Your task to perform on an android device: remove spam from my inbox in the gmail app Image 0: 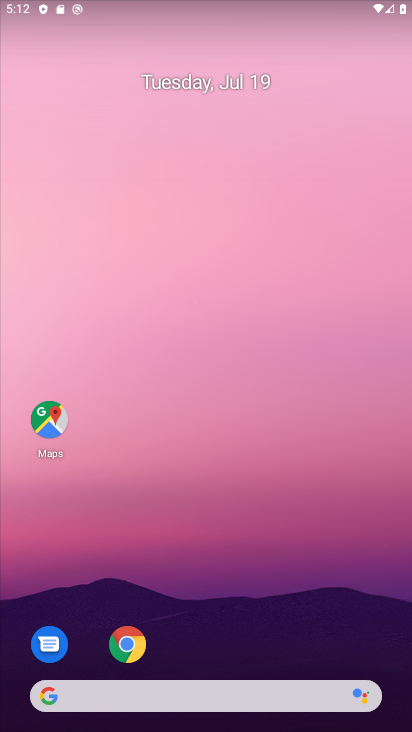
Step 0: drag from (295, 601) to (295, 181)
Your task to perform on an android device: remove spam from my inbox in the gmail app Image 1: 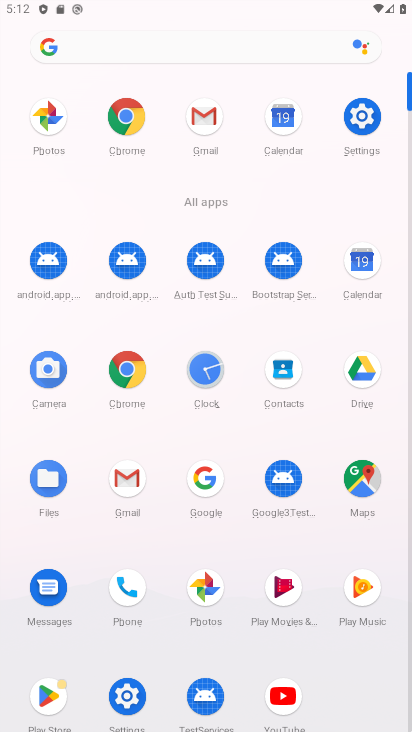
Step 1: click (133, 479)
Your task to perform on an android device: remove spam from my inbox in the gmail app Image 2: 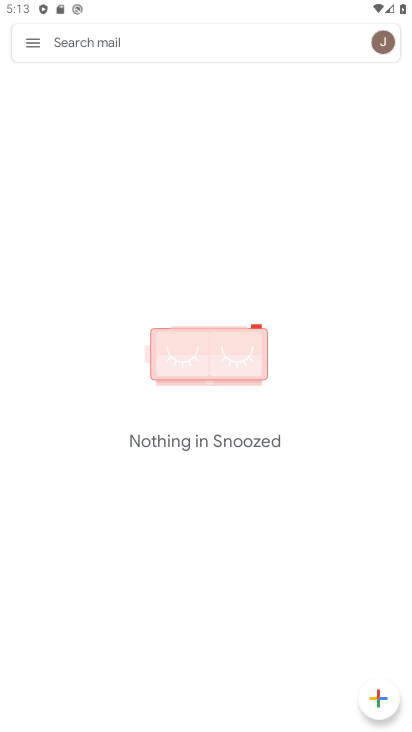
Step 2: click (34, 44)
Your task to perform on an android device: remove spam from my inbox in the gmail app Image 3: 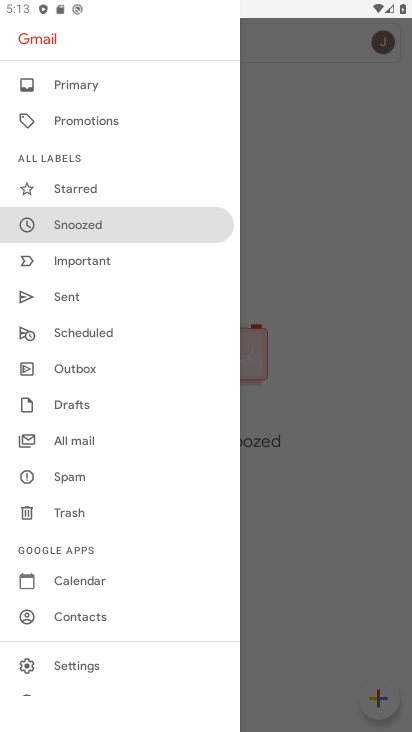
Step 3: click (83, 511)
Your task to perform on an android device: remove spam from my inbox in the gmail app Image 4: 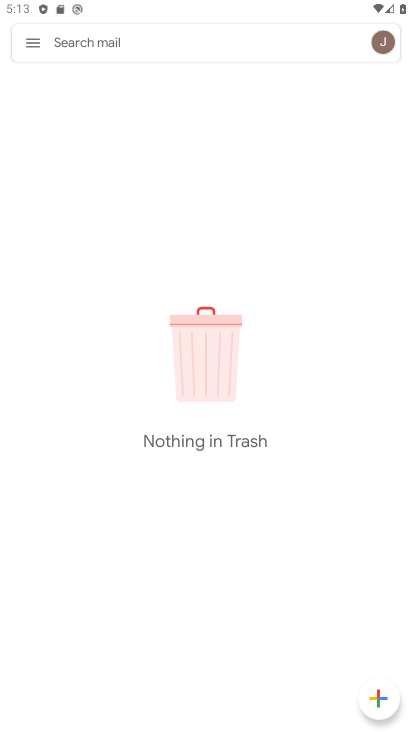
Step 4: task complete